Your task to perform on an android device: toggle data saver in the chrome app Image 0: 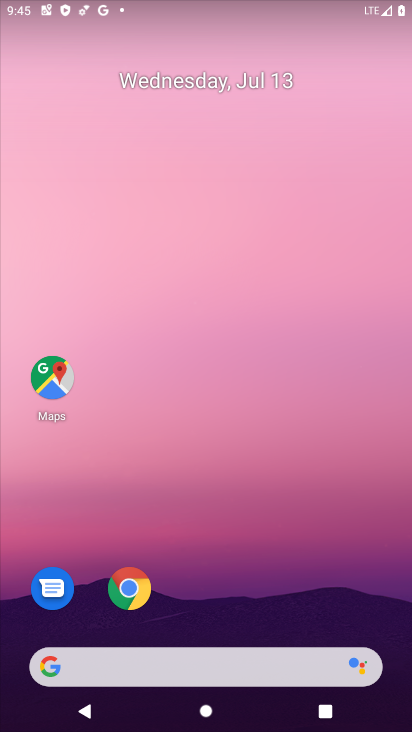
Step 0: click (125, 589)
Your task to perform on an android device: toggle data saver in the chrome app Image 1: 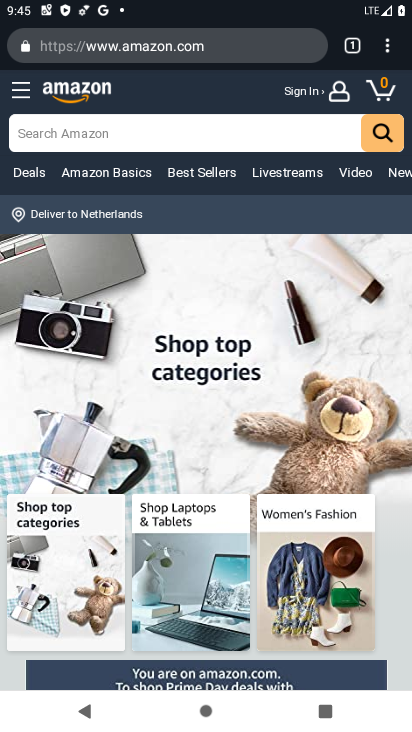
Step 1: click (383, 43)
Your task to perform on an android device: toggle data saver in the chrome app Image 2: 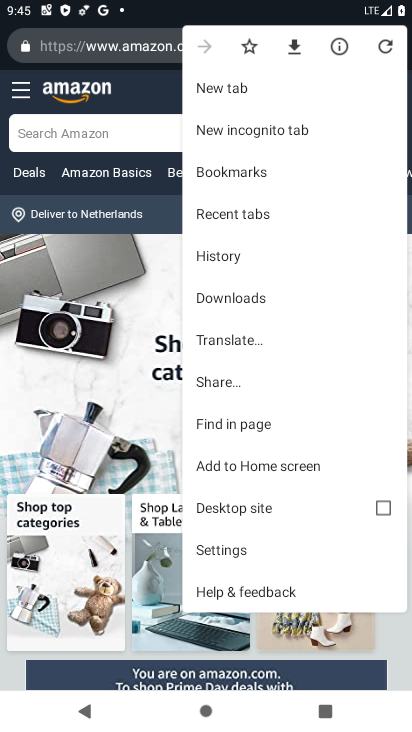
Step 2: click (243, 556)
Your task to perform on an android device: toggle data saver in the chrome app Image 3: 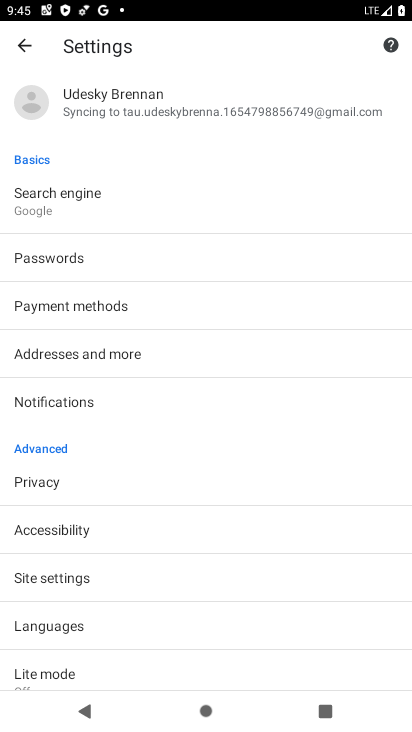
Step 3: drag from (132, 603) to (131, 363)
Your task to perform on an android device: toggle data saver in the chrome app Image 4: 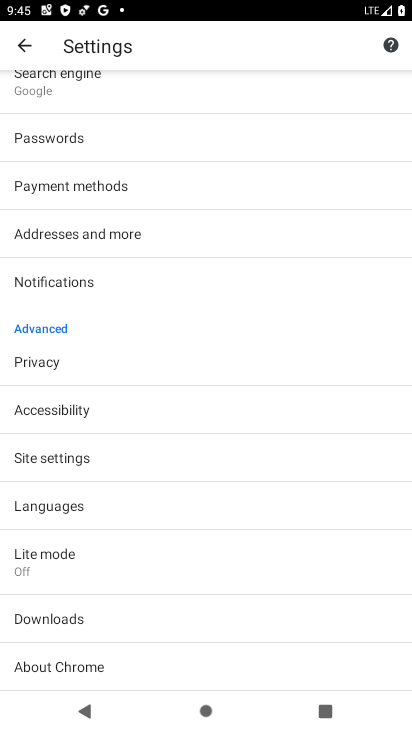
Step 4: click (54, 575)
Your task to perform on an android device: toggle data saver in the chrome app Image 5: 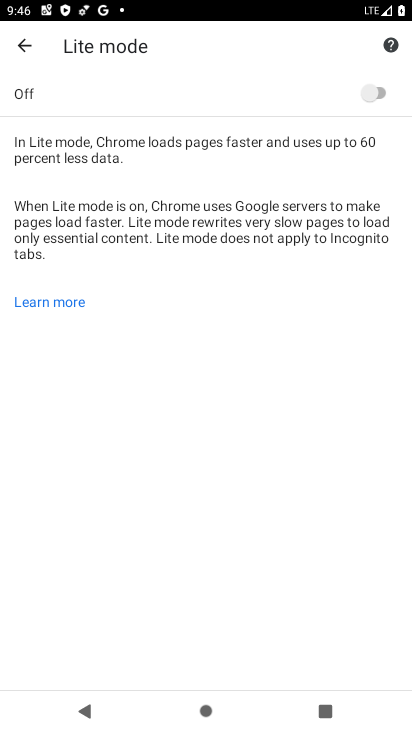
Step 5: click (379, 90)
Your task to perform on an android device: toggle data saver in the chrome app Image 6: 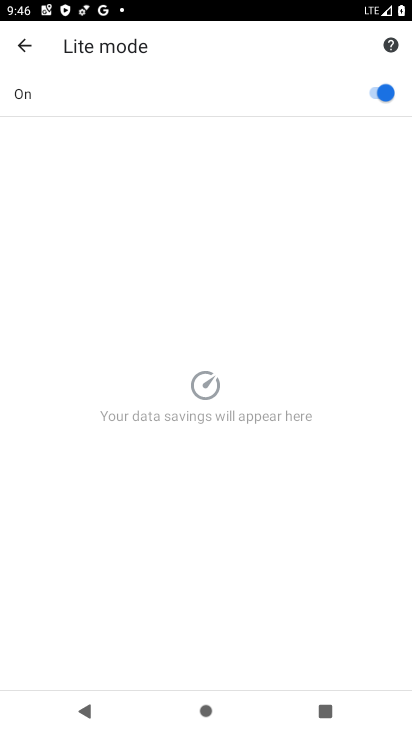
Step 6: task complete